Your task to perform on an android device: Open calendar and show me the fourth week of next month Image 0: 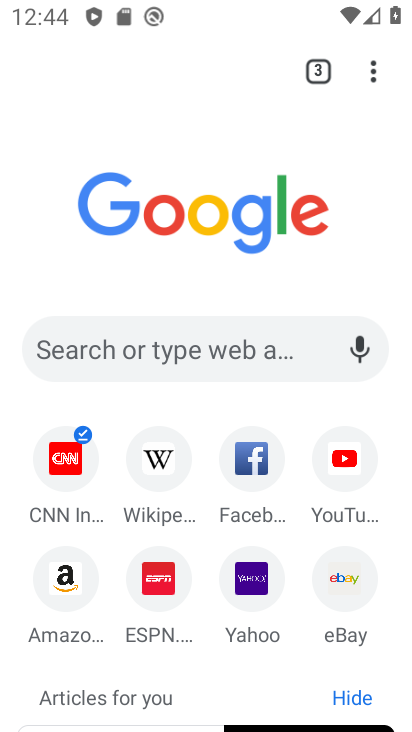
Step 0: press home button
Your task to perform on an android device: Open calendar and show me the fourth week of next month Image 1: 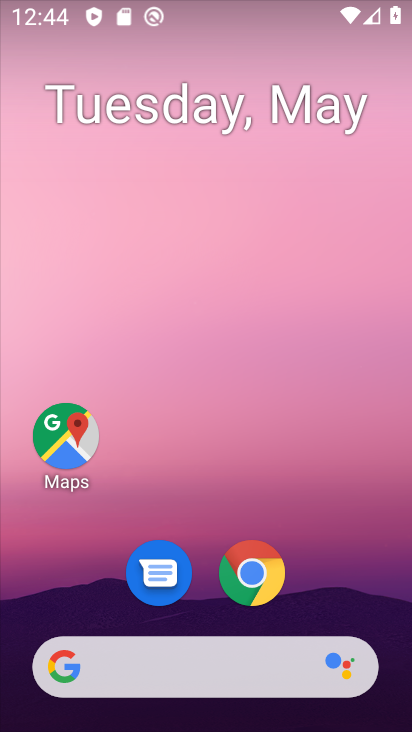
Step 1: drag from (394, 562) to (343, 119)
Your task to perform on an android device: Open calendar and show me the fourth week of next month Image 2: 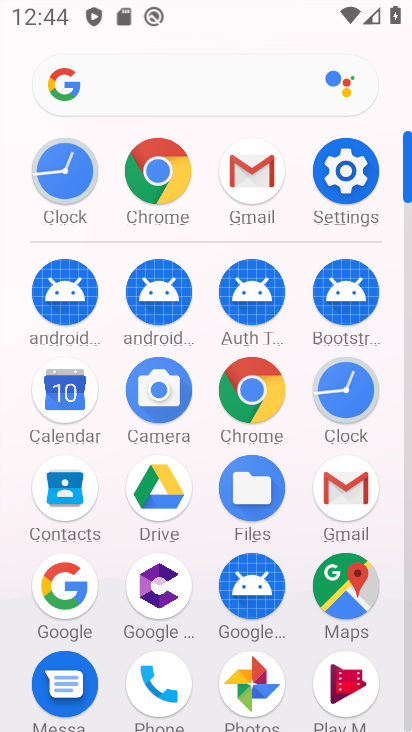
Step 2: click (66, 397)
Your task to perform on an android device: Open calendar and show me the fourth week of next month Image 3: 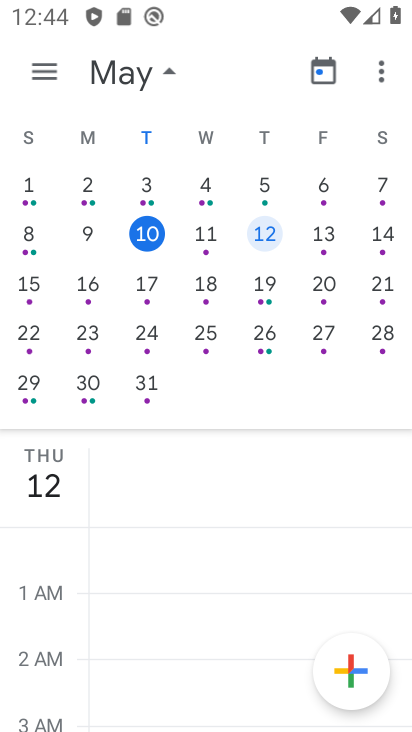
Step 3: drag from (382, 339) to (45, 357)
Your task to perform on an android device: Open calendar and show me the fourth week of next month Image 4: 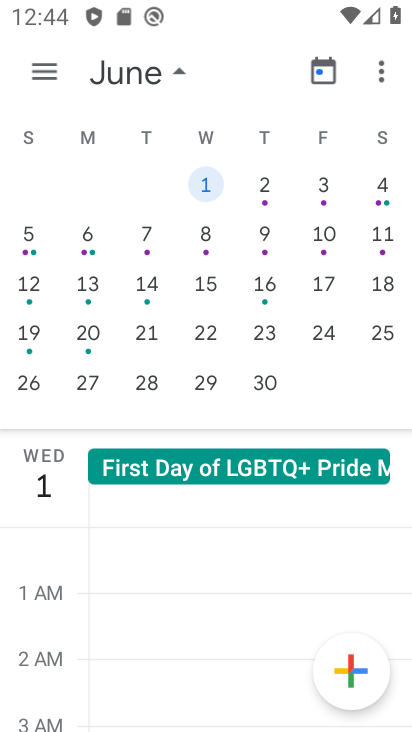
Step 4: click (144, 380)
Your task to perform on an android device: Open calendar and show me the fourth week of next month Image 5: 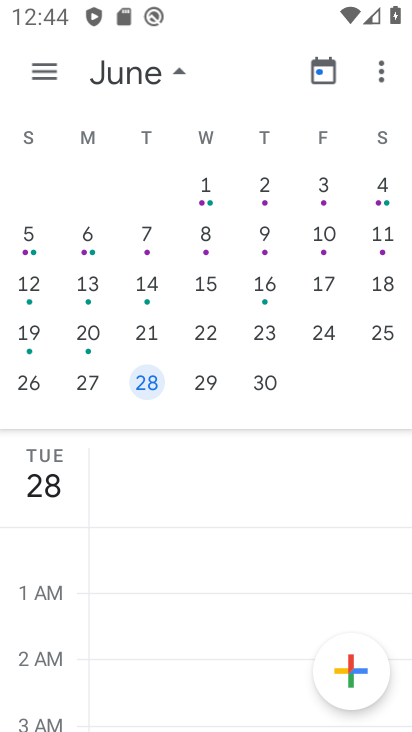
Step 5: task complete